Your task to perform on an android device: Open the map Image 0: 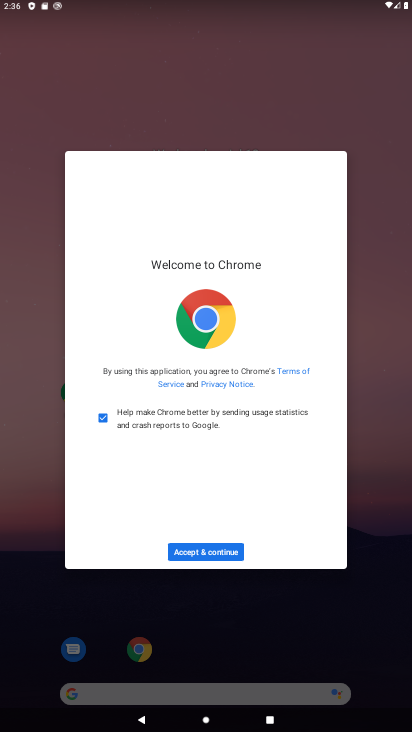
Step 0: press home button
Your task to perform on an android device: Open the map Image 1: 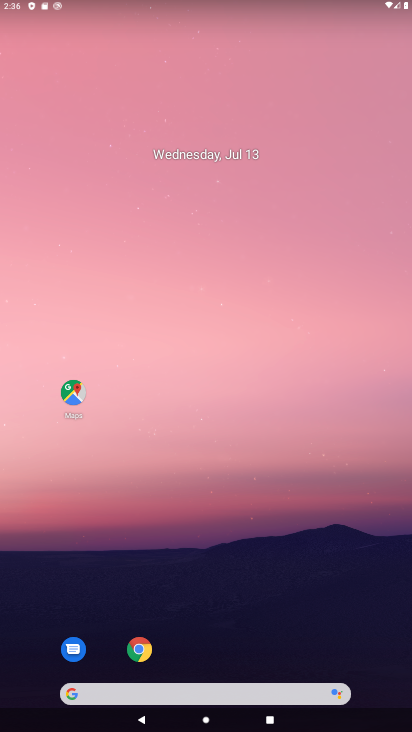
Step 1: drag from (186, 607) to (288, 8)
Your task to perform on an android device: Open the map Image 2: 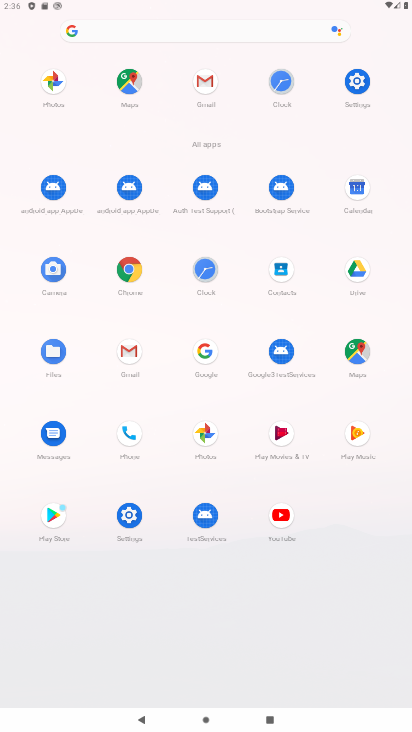
Step 2: drag from (237, 603) to (252, 371)
Your task to perform on an android device: Open the map Image 3: 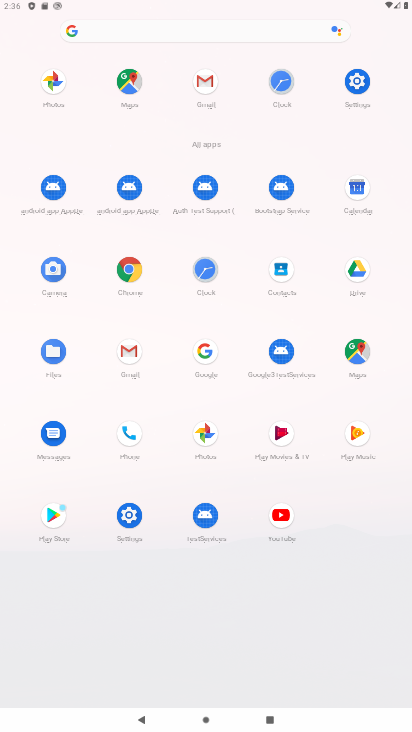
Step 3: click (370, 84)
Your task to perform on an android device: Open the map Image 4: 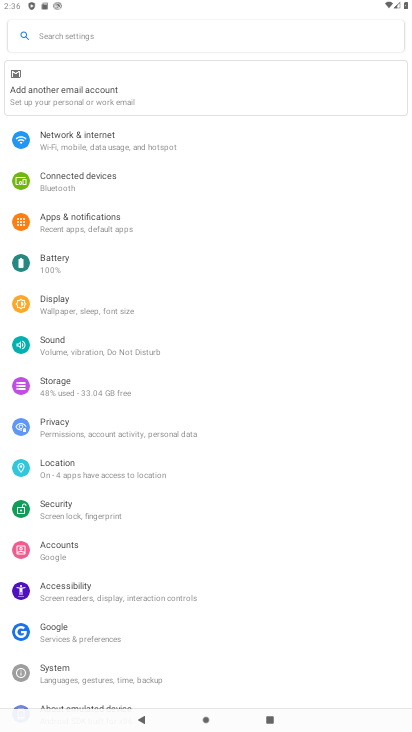
Step 4: click (112, 309)
Your task to perform on an android device: Open the map Image 5: 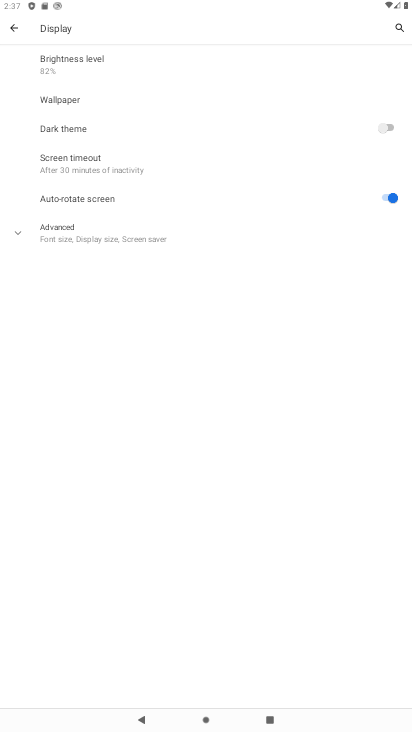
Step 5: click (77, 237)
Your task to perform on an android device: Open the map Image 6: 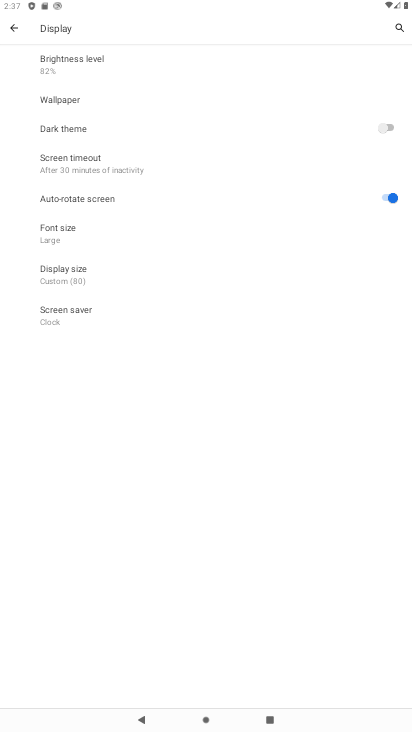
Step 6: click (98, 269)
Your task to perform on an android device: Open the map Image 7: 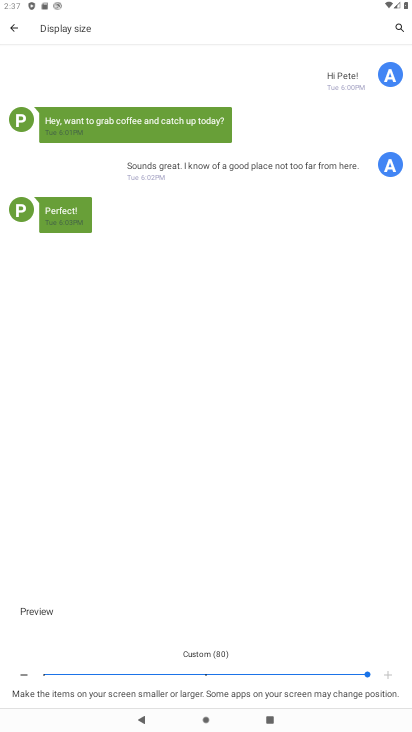
Step 7: task complete